Your task to perform on an android device: turn on the 12-hour format for clock Image 0: 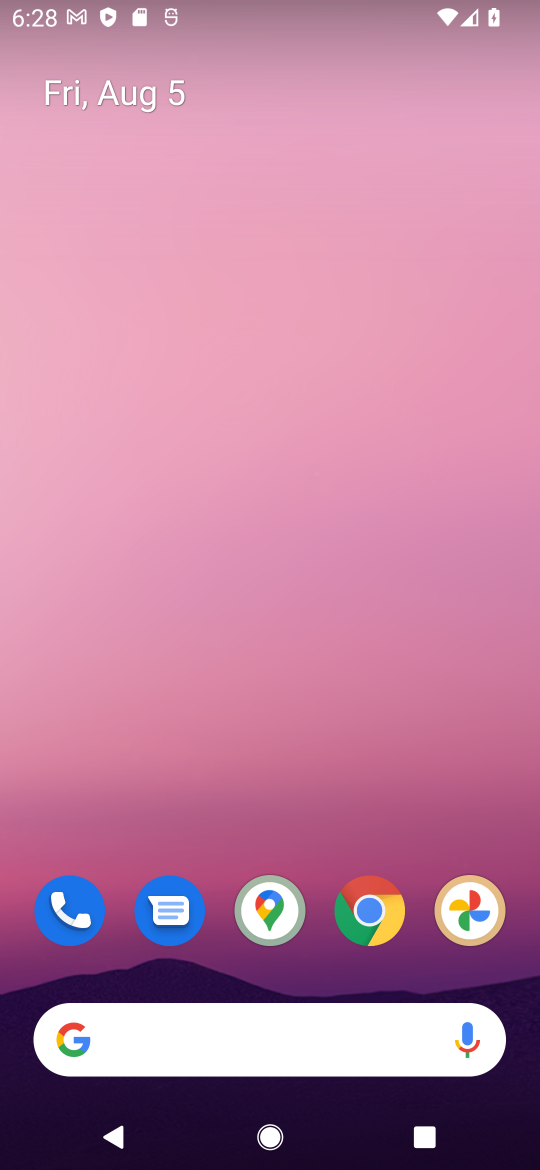
Step 0: drag from (321, 1009) to (190, 39)
Your task to perform on an android device: turn on the 12-hour format for clock Image 1: 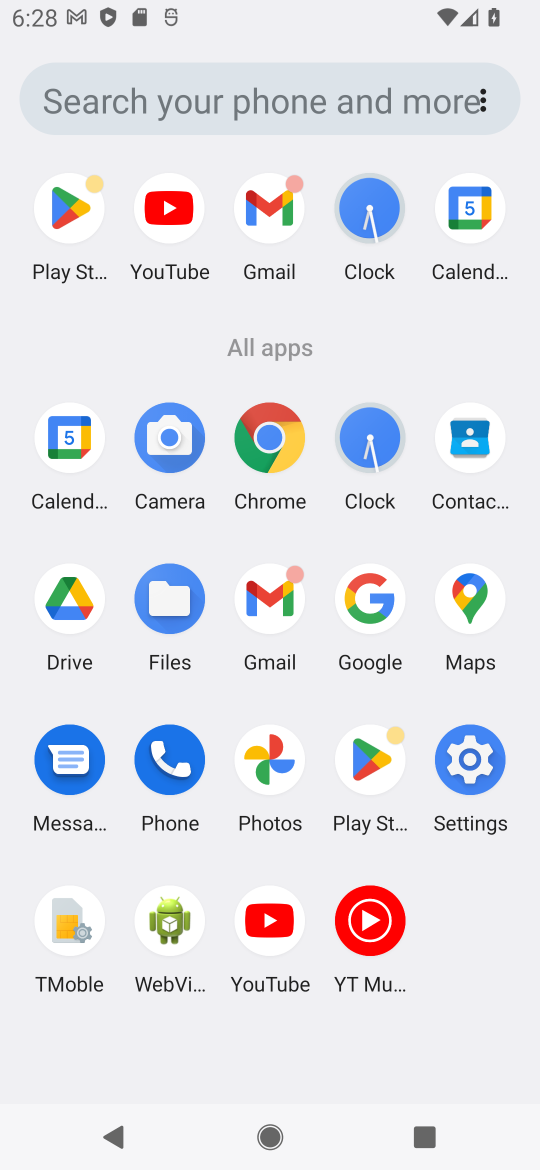
Step 1: click (387, 462)
Your task to perform on an android device: turn on the 12-hour format for clock Image 2: 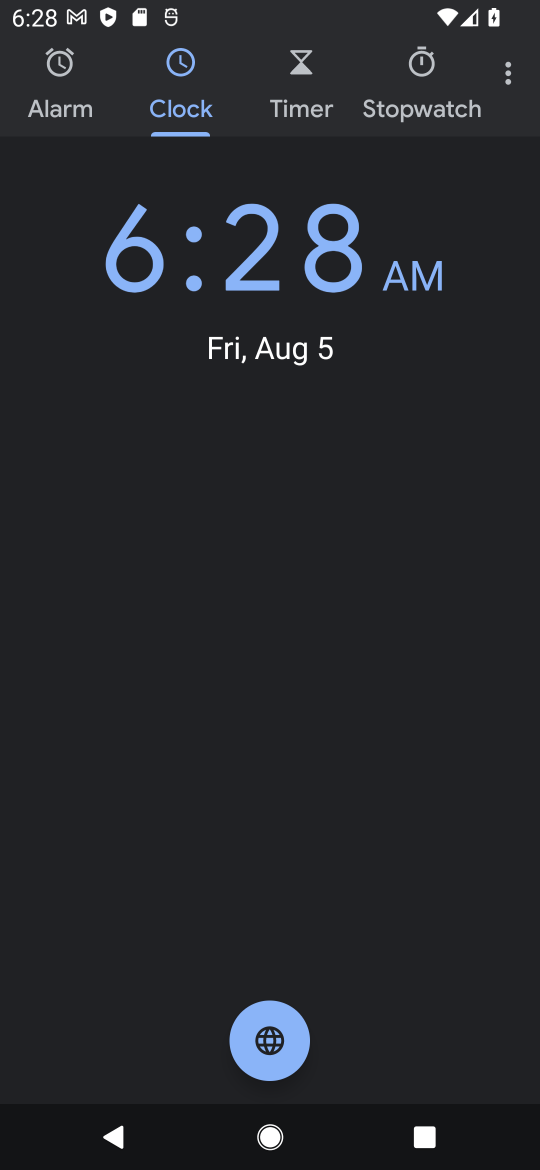
Step 2: click (501, 88)
Your task to perform on an android device: turn on the 12-hour format for clock Image 3: 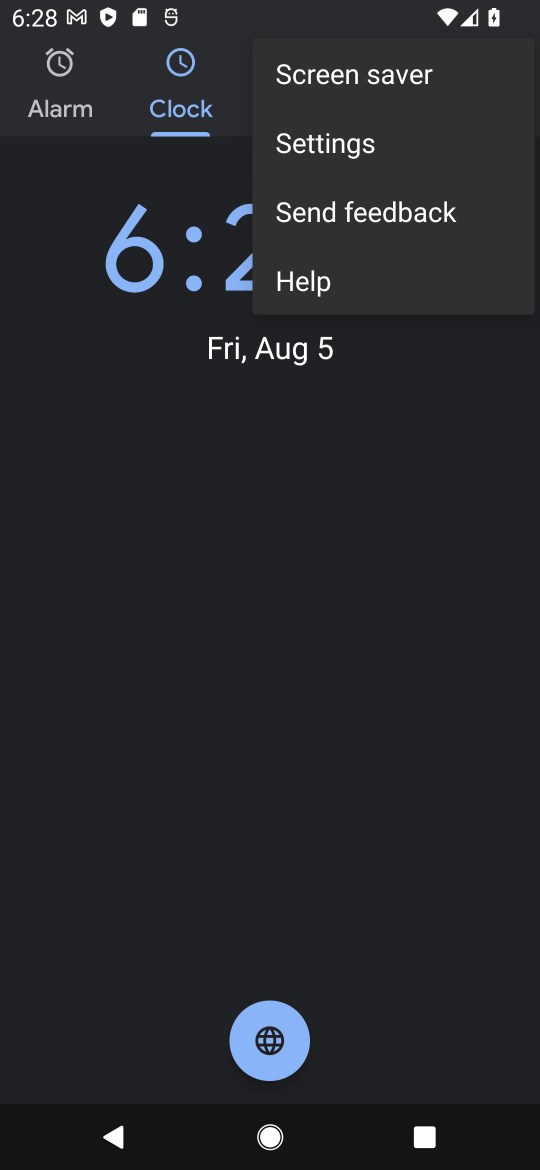
Step 3: click (384, 142)
Your task to perform on an android device: turn on the 12-hour format for clock Image 4: 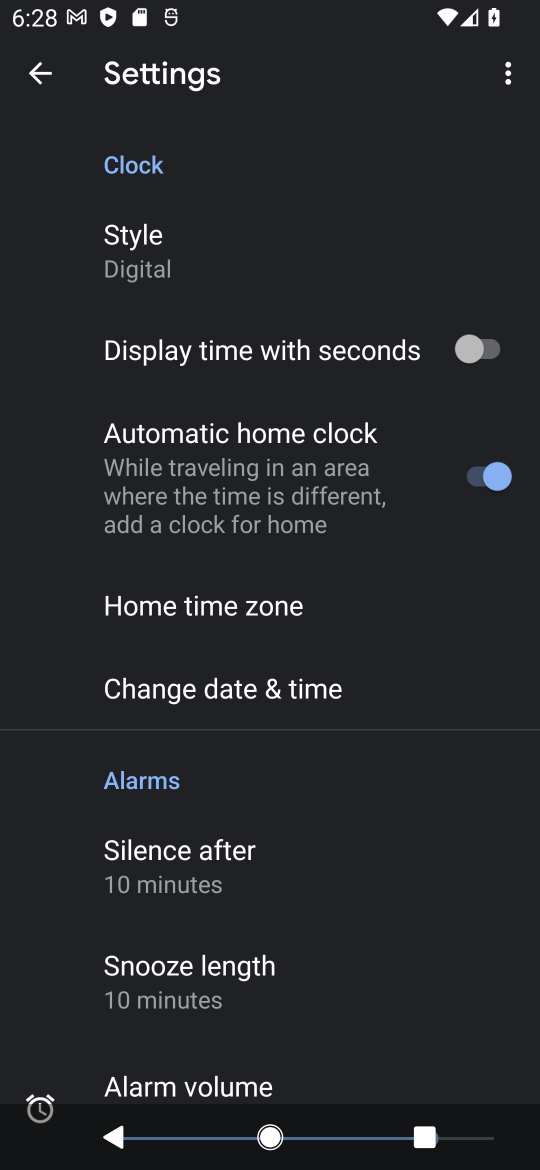
Step 4: click (338, 713)
Your task to perform on an android device: turn on the 12-hour format for clock Image 5: 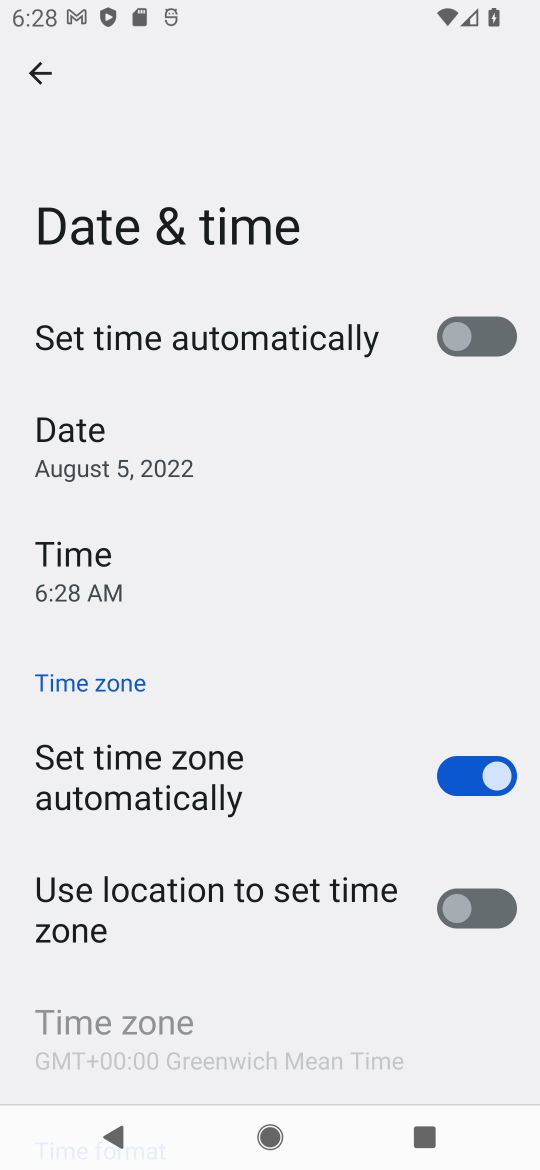
Step 5: drag from (331, 999) to (309, 558)
Your task to perform on an android device: turn on the 12-hour format for clock Image 6: 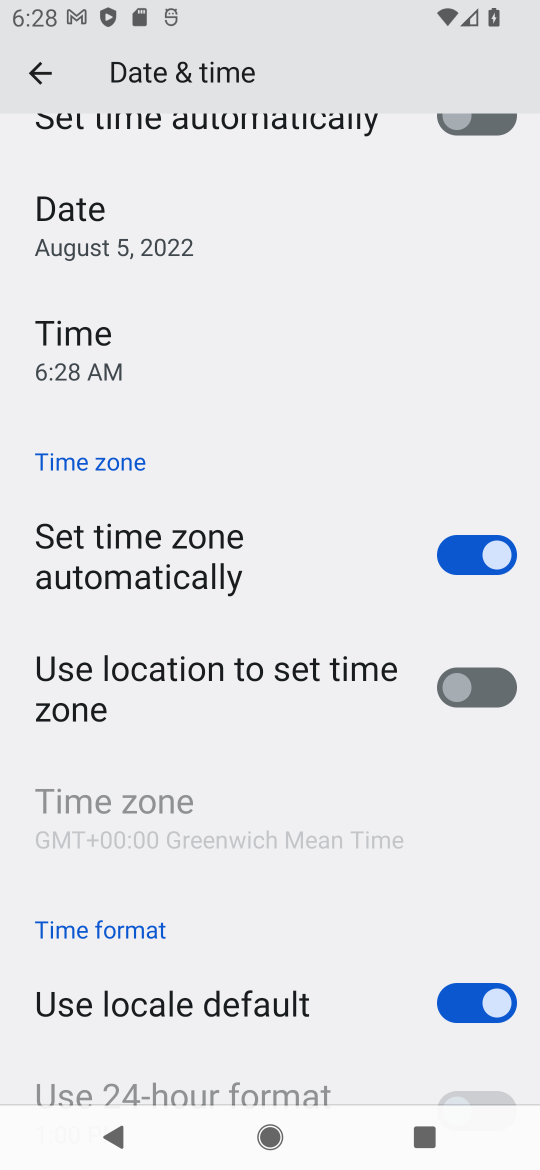
Step 6: drag from (337, 942) to (315, 678)
Your task to perform on an android device: turn on the 12-hour format for clock Image 7: 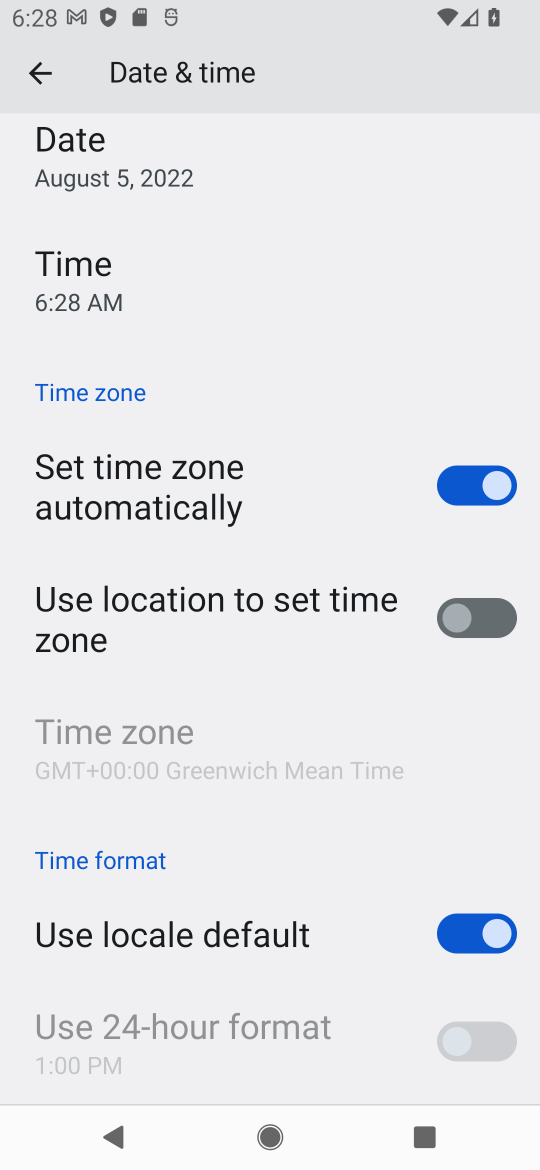
Step 7: click (476, 923)
Your task to perform on an android device: turn on the 12-hour format for clock Image 8: 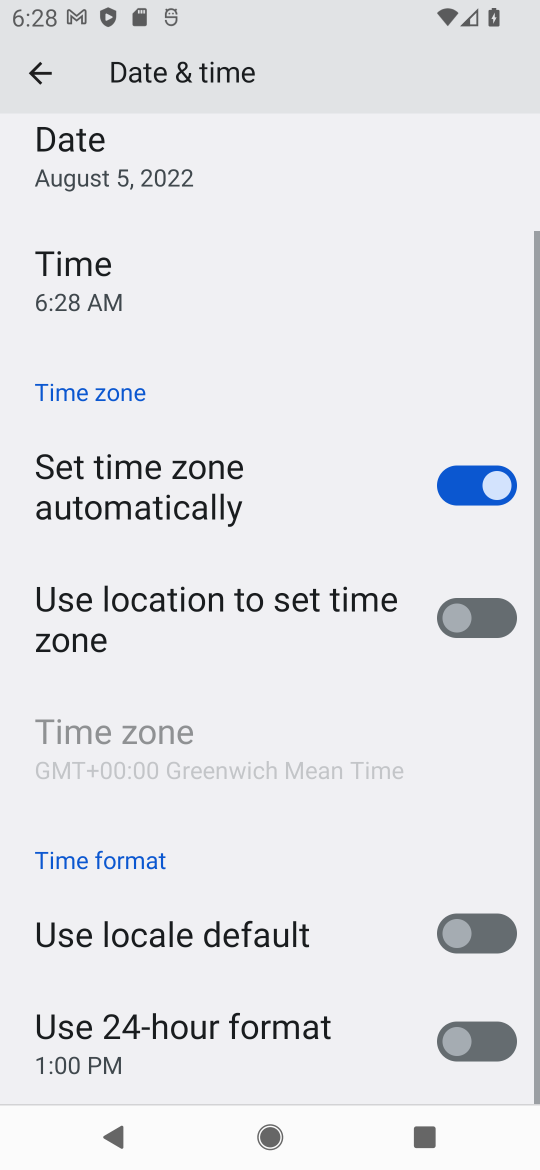
Step 8: task complete